Your task to perform on an android device: toggle improve location accuracy Image 0: 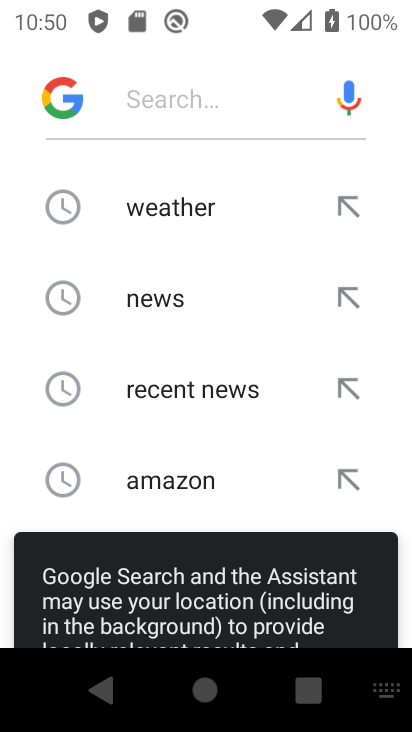
Step 0: press home button
Your task to perform on an android device: toggle improve location accuracy Image 1: 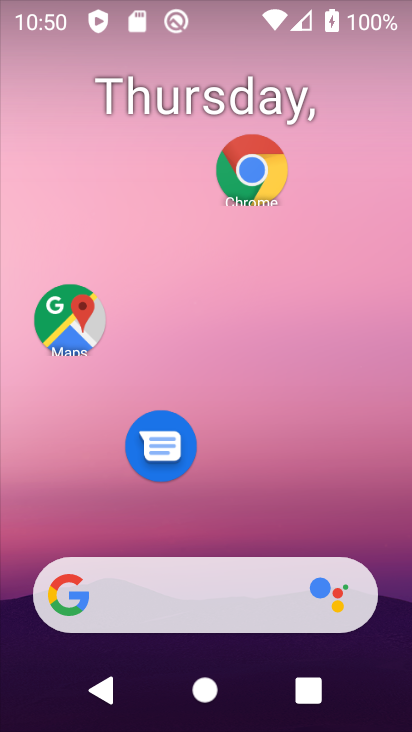
Step 1: drag from (186, 561) to (270, 187)
Your task to perform on an android device: toggle improve location accuracy Image 2: 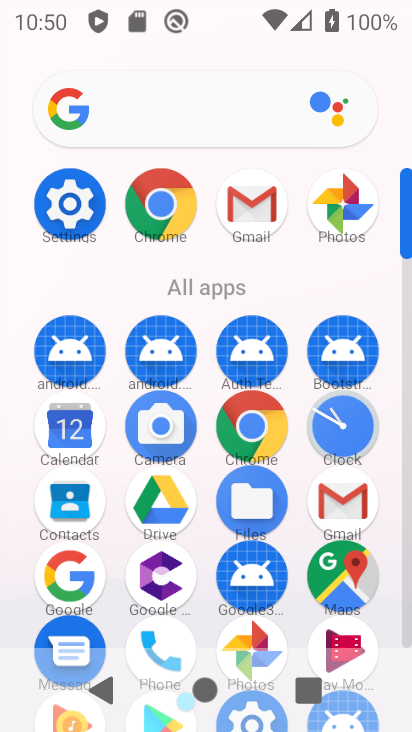
Step 2: click (79, 194)
Your task to perform on an android device: toggle improve location accuracy Image 3: 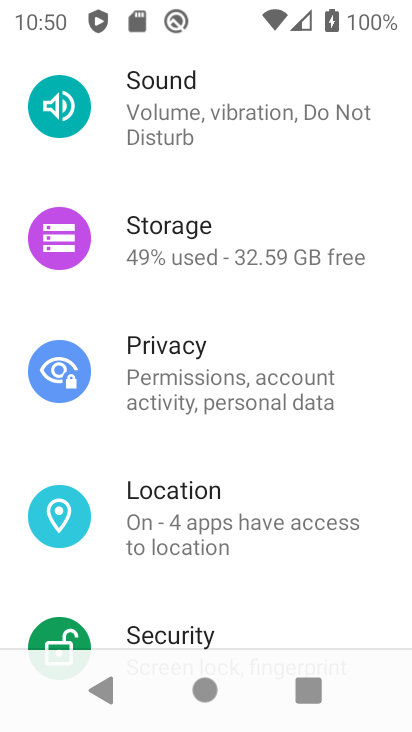
Step 3: click (169, 513)
Your task to perform on an android device: toggle improve location accuracy Image 4: 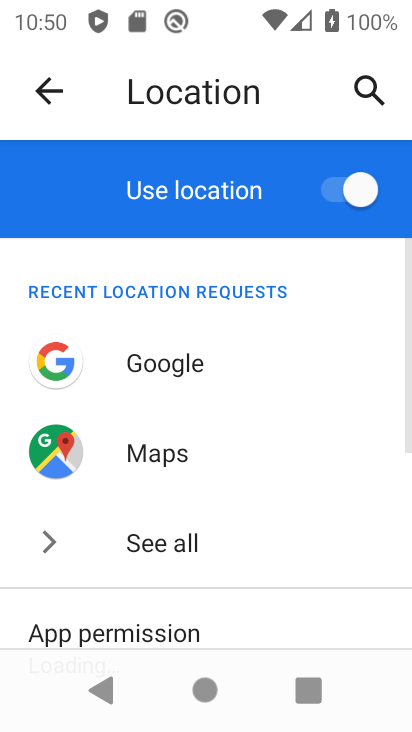
Step 4: drag from (216, 631) to (248, 268)
Your task to perform on an android device: toggle improve location accuracy Image 5: 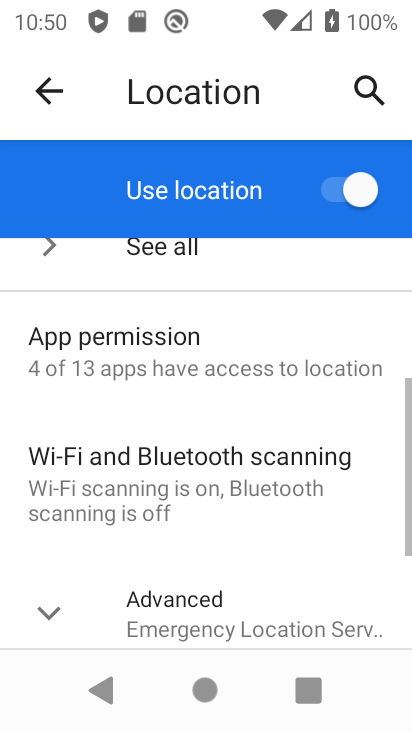
Step 5: click (203, 624)
Your task to perform on an android device: toggle improve location accuracy Image 6: 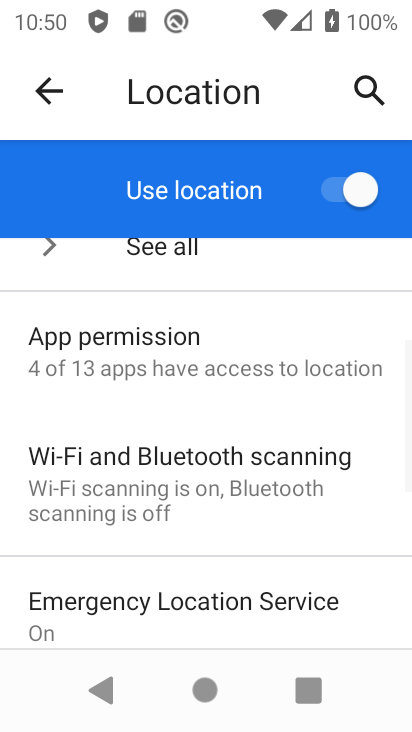
Step 6: drag from (183, 628) to (223, 366)
Your task to perform on an android device: toggle improve location accuracy Image 7: 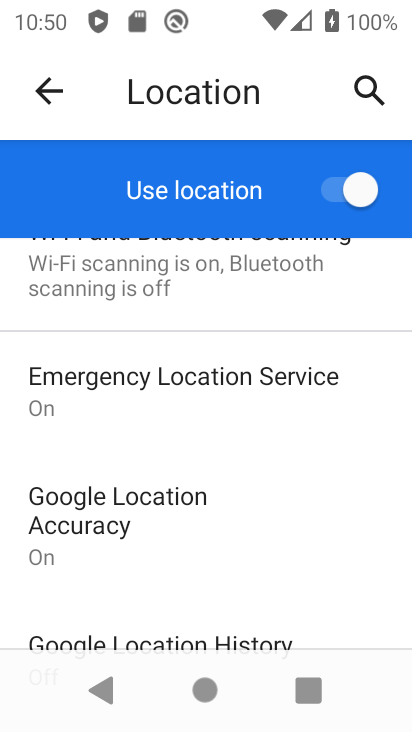
Step 7: click (154, 524)
Your task to perform on an android device: toggle improve location accuracy Image 8: 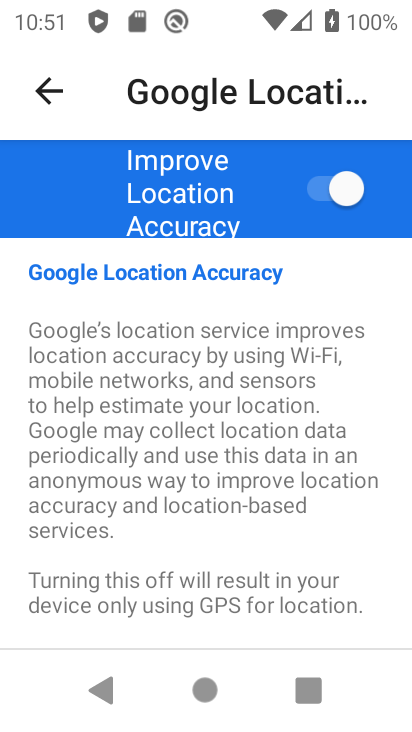
Step 8: click (320, 187)
Your task to perform on an android device: toggle improve location accuracy Image 9: 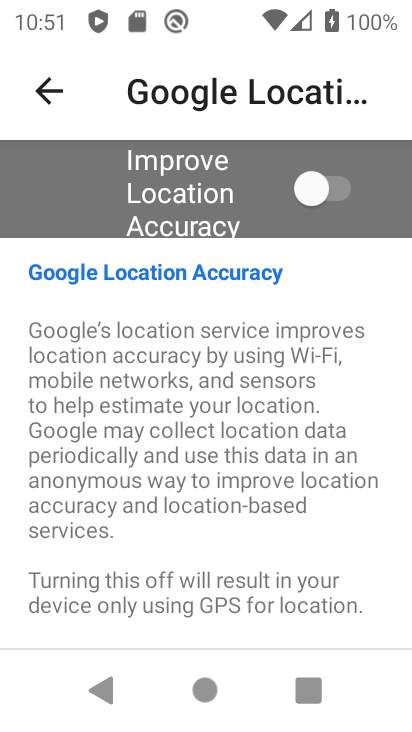
Step 9: task complete